Your task to perform on an android device: Open battery settings Image 0: 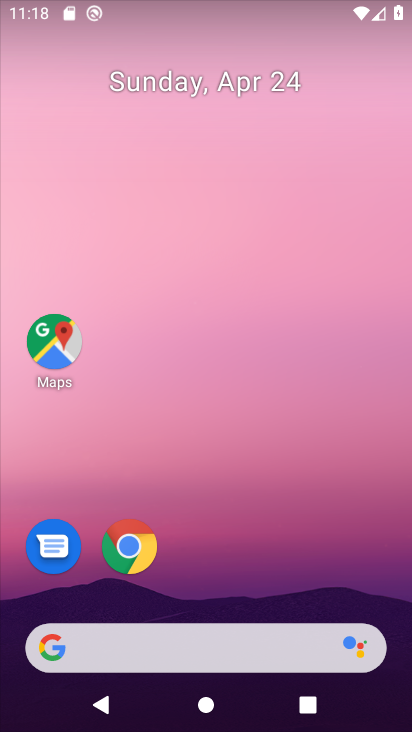
Step 0: drag from (206, 498) to (266, 0)
Your task to perform on an android device: Open battery settings Image 1: 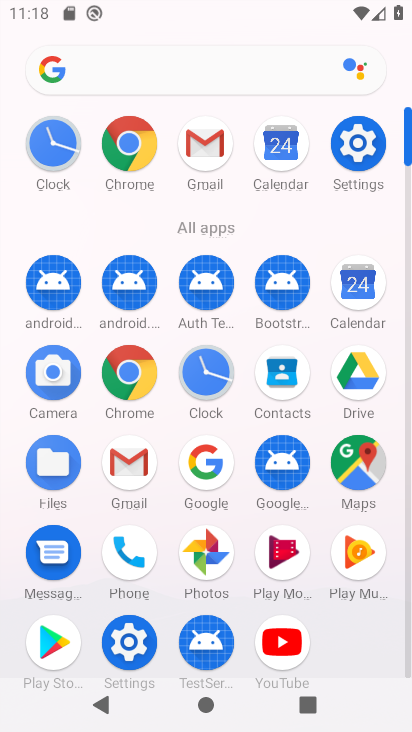
Step 1: click (359, 168)
Your task to perform on an android device: Open battery settings Image 2: 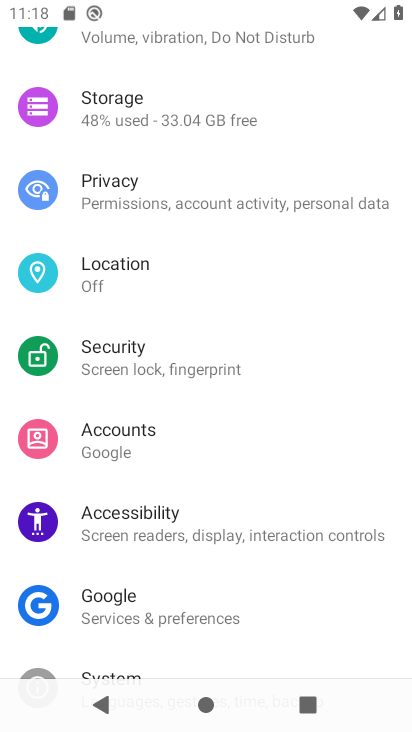
Step 2: drag from (193, 233) to (193, 533)
Your task to perform on an android device: Open battery settings Image 3: 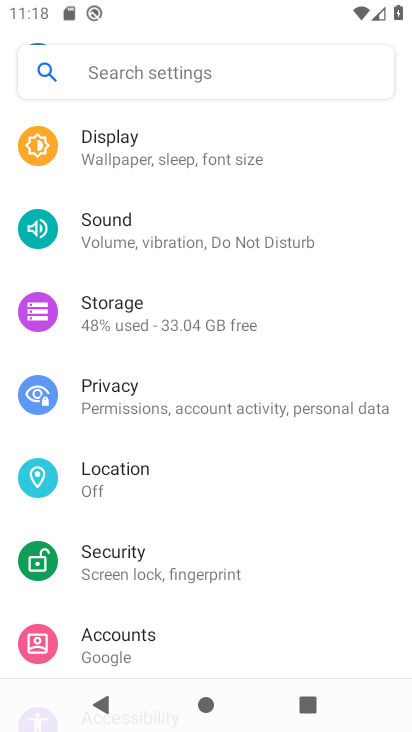
Step 3: drag from (179, 168) to (127, 641)
Your task to perform on an android device: Open battery settings Image 4: 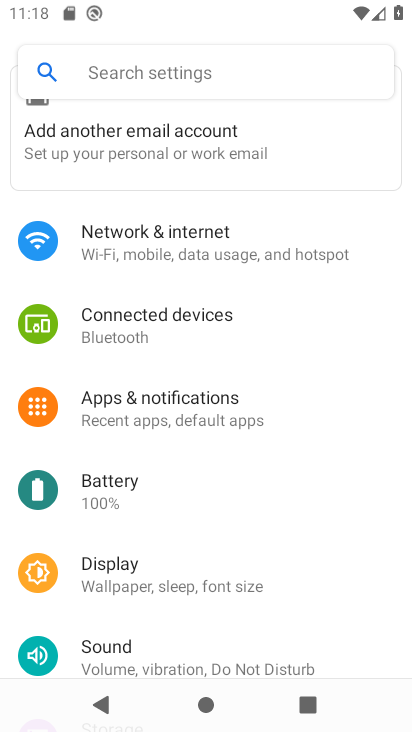
Step 4: click (159, 486)
Your task to perform on an android device: Open battery settings Image 5: 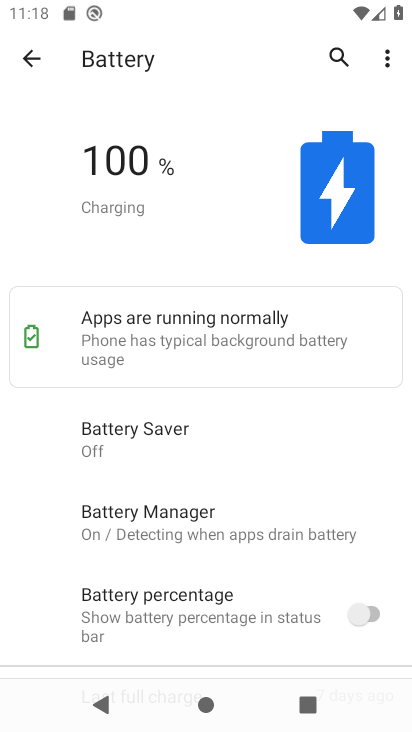
Step 5: task complete